Your task to perform on an android device: What's the weather going to be this weekend? Image 0: 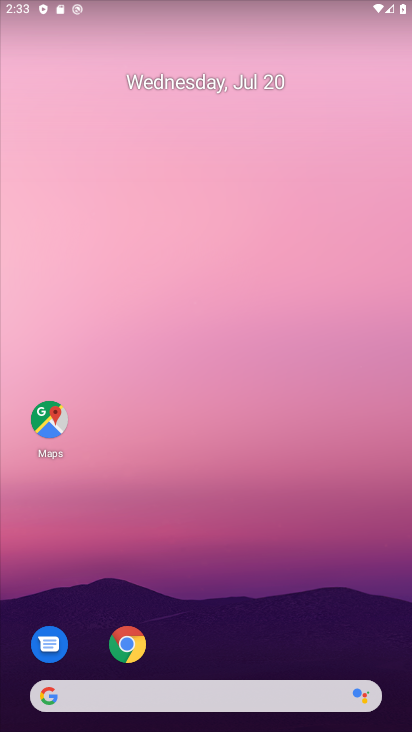
Step 0: drag from (319, 645) to (294, 91)
Your task to perform on an android device: What's the weather going to be this weekend? Image 1: 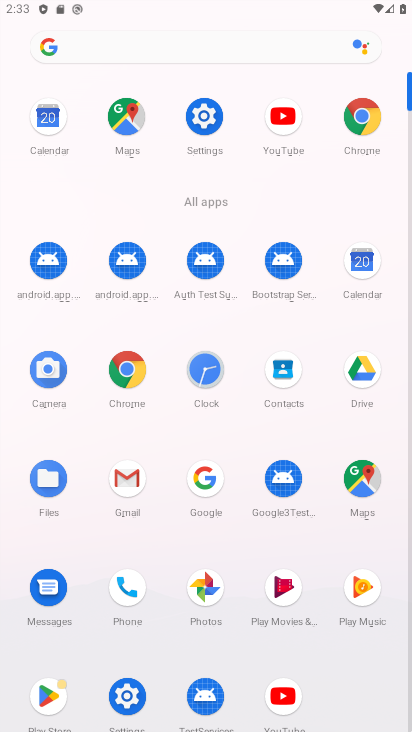
Step 1: click (234, 31)
Your task to perform on an android device: What's the weather going to be this weekend? Image 2: 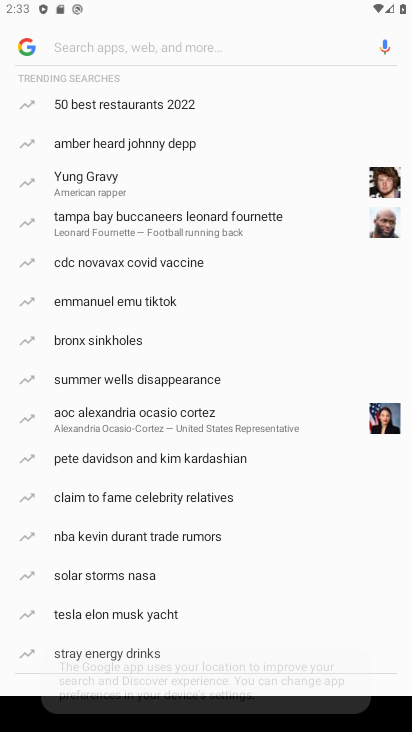
Step 2: type "weather"
Your task to perform on an android device: What's the weather going to be this weekend? Image 3: 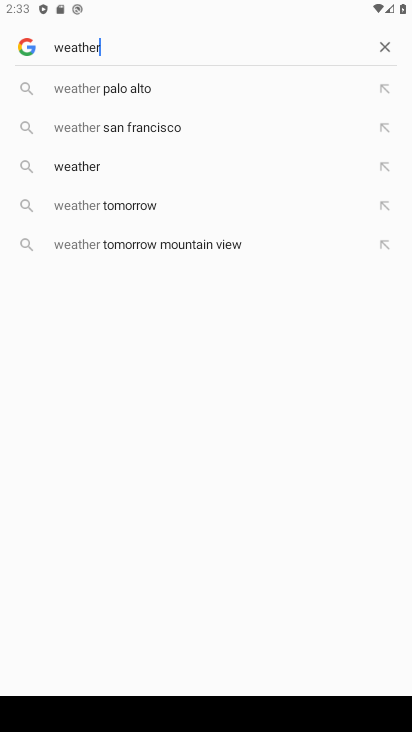
Step 3: click (149, 165)
Your task to perform on an android device: What's the weather going to be this weekend? Image 4: 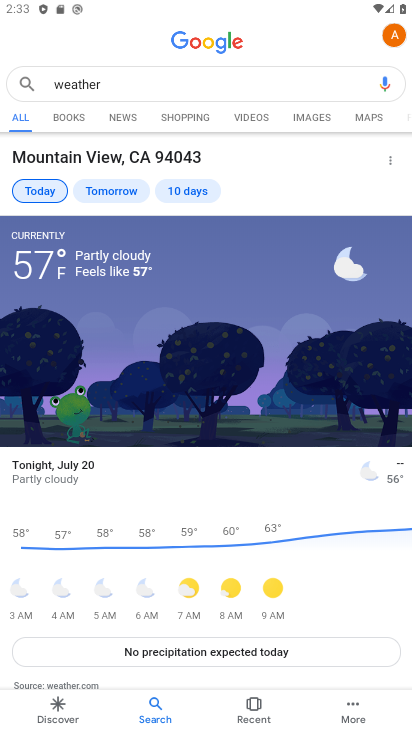
Step 4: task complete